Your task to perform on an android device: turn pop-ups off in chrome Image 0: 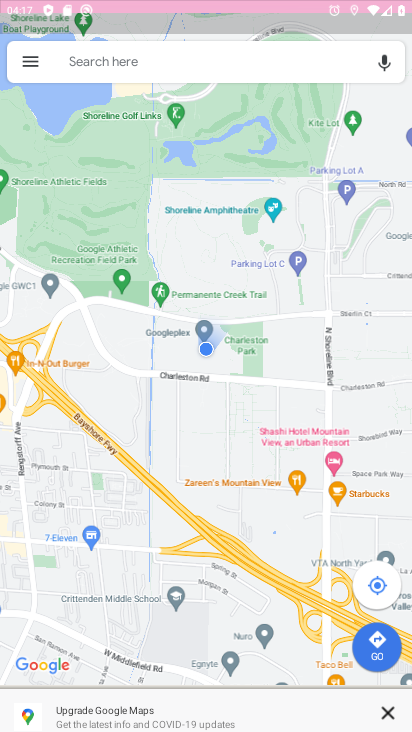
Step 0: drag from (252, 178) to (263, 71)
Your task to perform on an android device: turn pop-ups off in chrome Image 1: 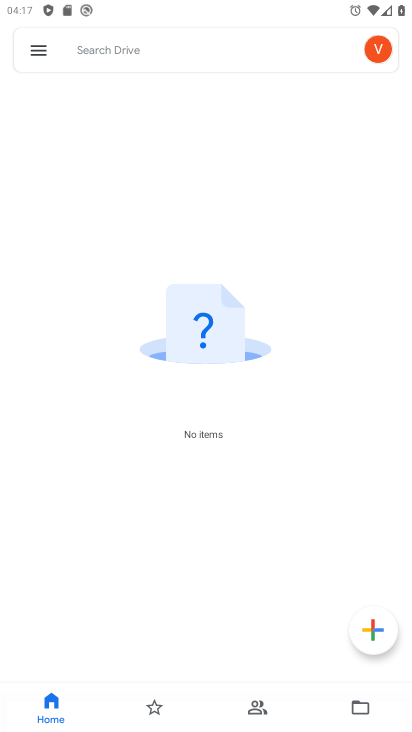
Step 1: press home button
Your task to perform on an android device: turn pop-ups off in chrome Image 2: 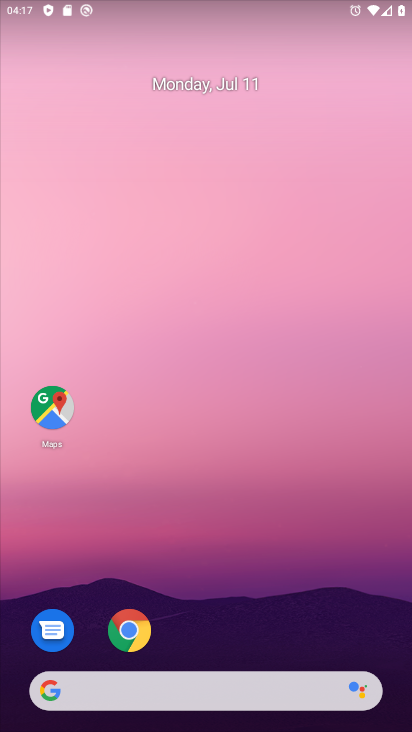
Step 2: drag from (227, 647) to (250, 122)
Your task to perform on an android device: turn pop-ups off in chrome Image 3: 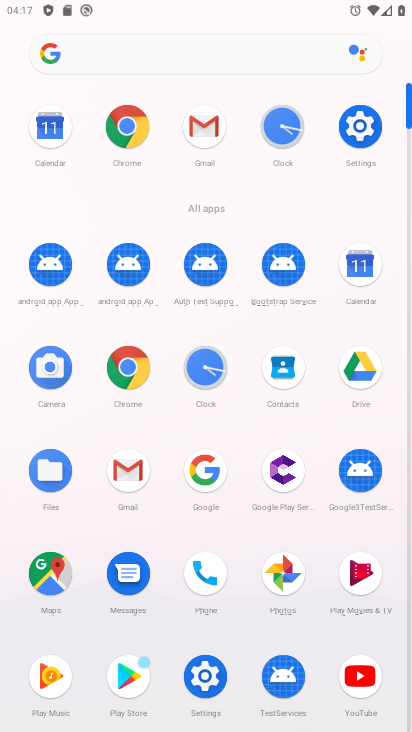
Step 3: click (123, 116)
Your task to perform on an android device: turn pop-ups off in chrome Image 4: 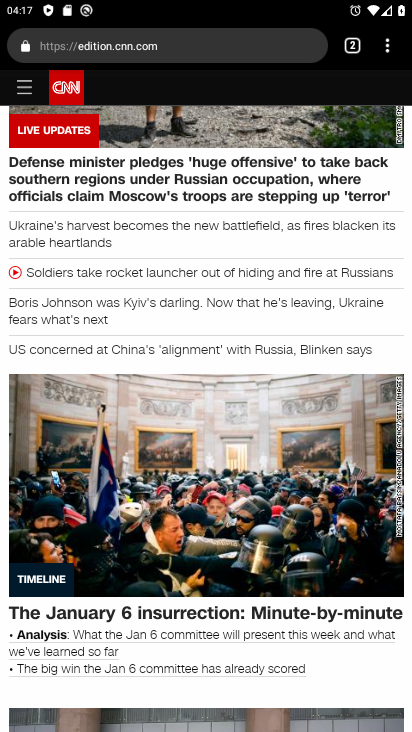
Step 4: click (389, 52)
Your task to perform on an android device: turn pop-ups off in chrome Image 5: 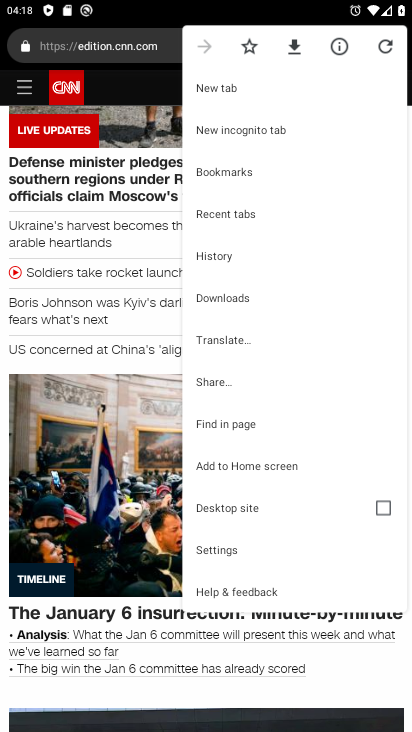
Step 5: click (241, 543)
Your task to perform on an android device: turn pop-ups off in chrome Image 6: 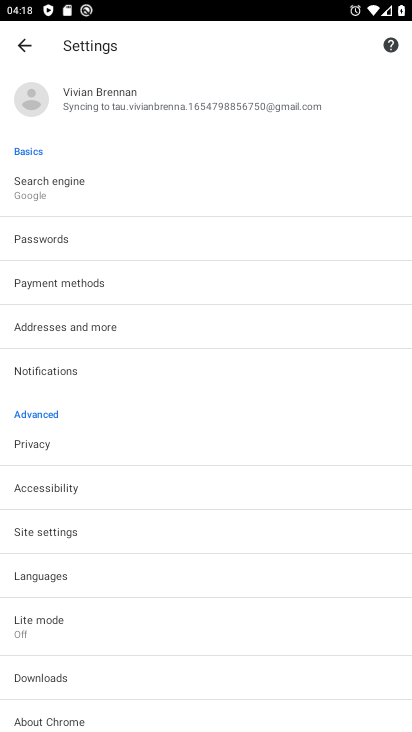
Step 6: click (92, 529)
Your task to perform on an android device: turn pop-ups off in chrome Image 7: 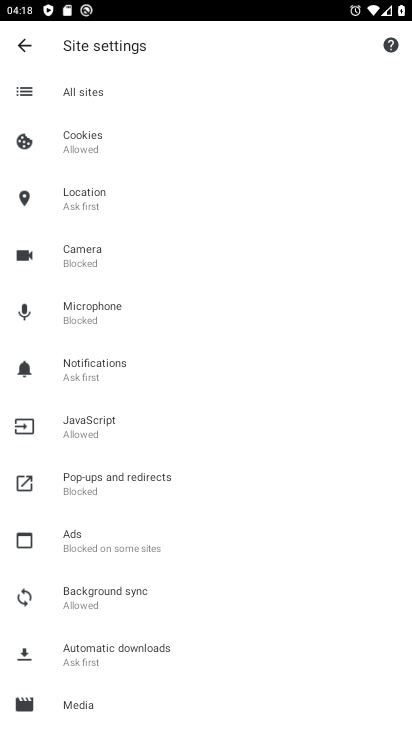
Step 7: click (118, 489)
Your task to perform on an android device: turn pop-ups off in chrome Image 8: 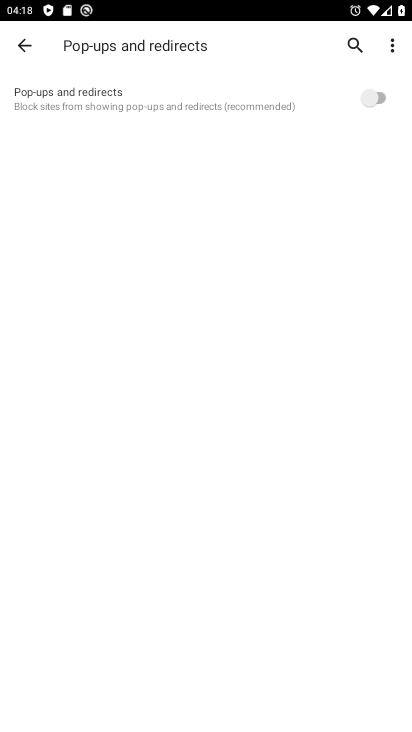
Step 8: task complete